Your task to perform on an android device: turn on priority inbox in the gmail app Image 0: 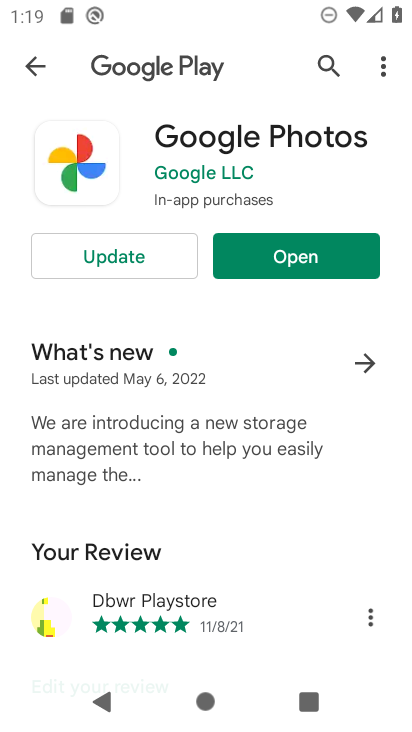
Step 0: press home button
Your task to perform on an android device: turn on priority inbox in the gmail app Image 1: 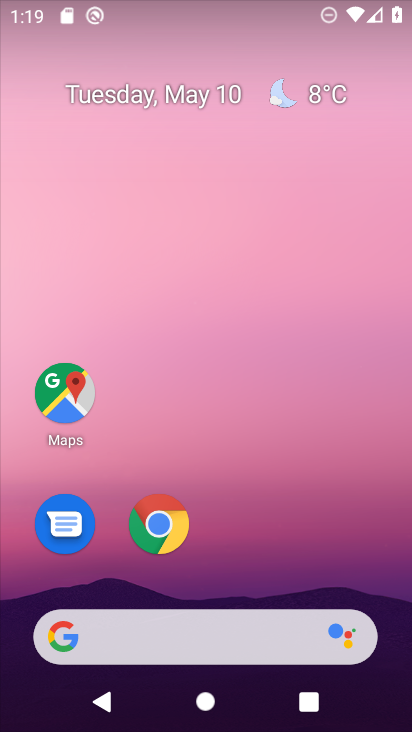
Step 1: drag from (271, 541) to (264, 34)
Your task to perform on an android device: turn on priority inbox in the gmail app Image 2: 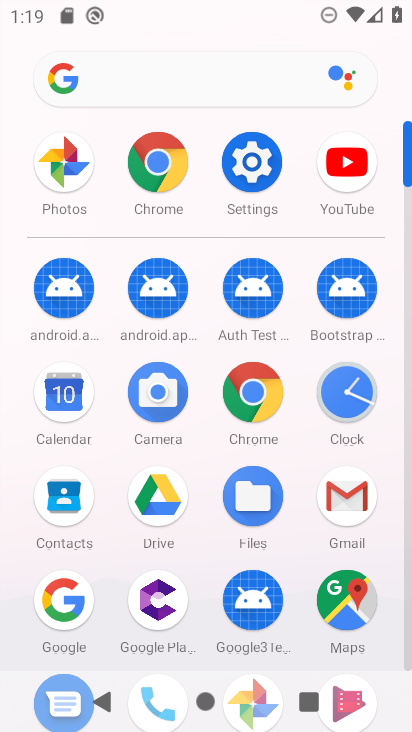
Step 2: click (345, 489)
Your task to perform on an android device: turn on priority inbox in the gmail app Image 3: 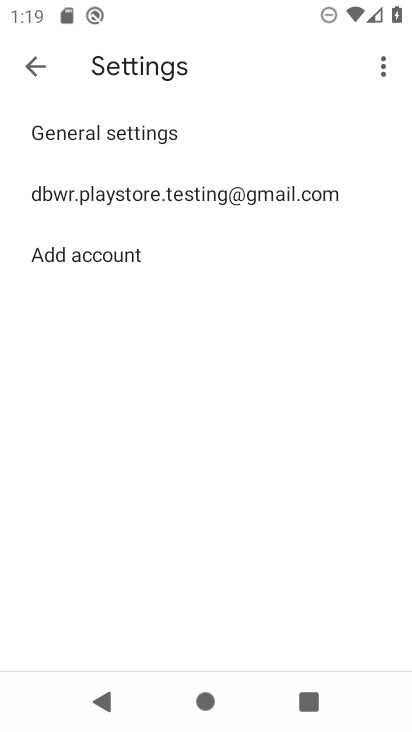
Step 3: press back button
Your task to perform on an android device: turn on priority inbox in the gmail app Image 4: 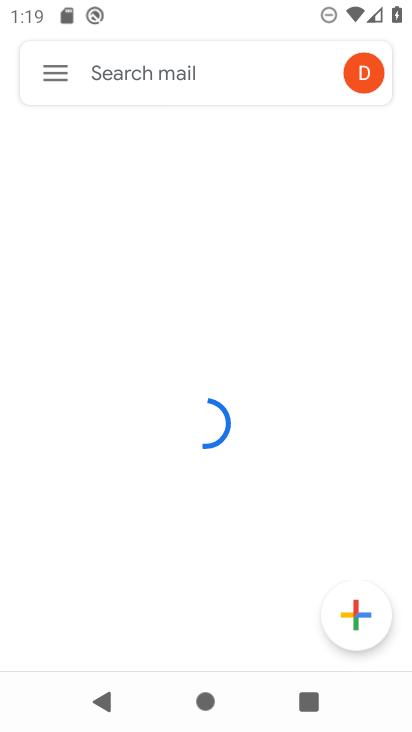
Step 4: click (56, 68)
Your task to perform on an android device: turn on priority inbox in the gmail app Image 5: 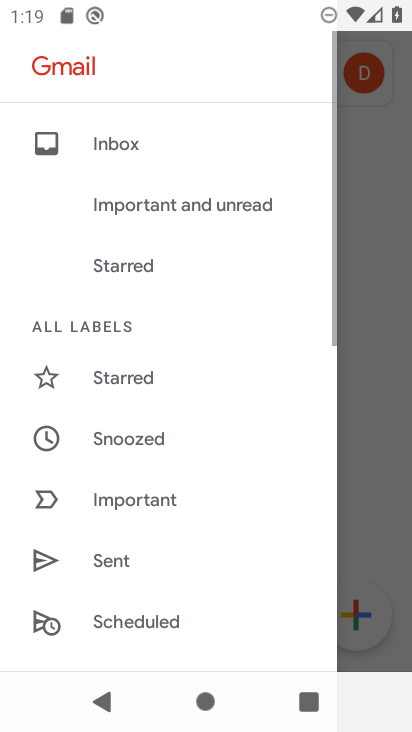
Step 5: drag from (151, 544) to (199, 111)
Your task to perform on an android device: turn on priority inbox in the gmail app Image 6: 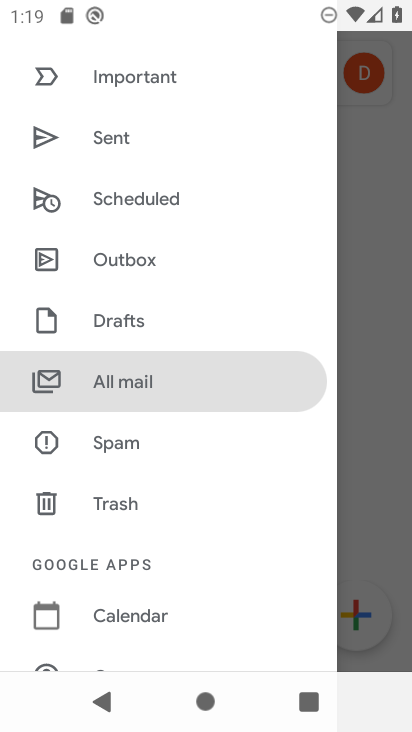
Step 6: drag from (167, 528) to (199, 134)
Your task to perform on an android device: turn on priority inbox in the gmail app Image 7: 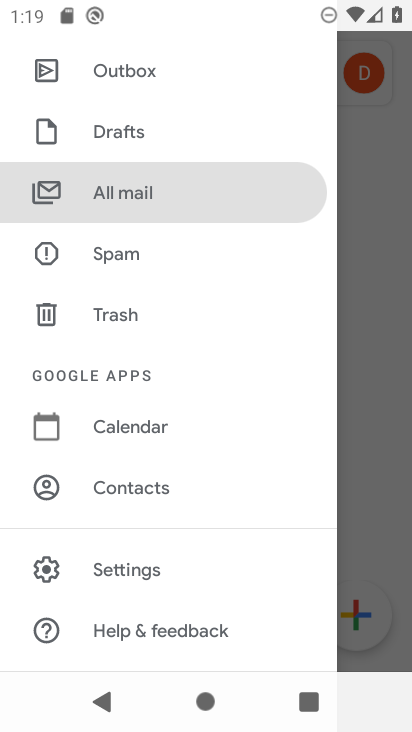
Step 7: click (137, 562)
Your task to perform on an android device: turn on priority inbox in the gmail app Image 8: 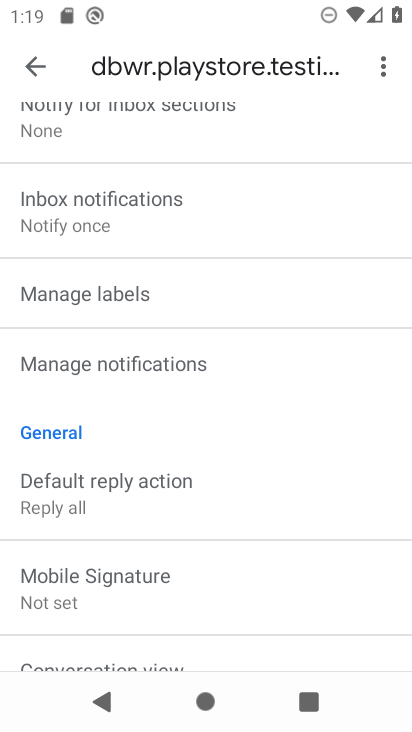
Step 8: task complete